Your task to perform on an android device: uninstall "Google Pay: Save, Pay, Manage" Image 0: 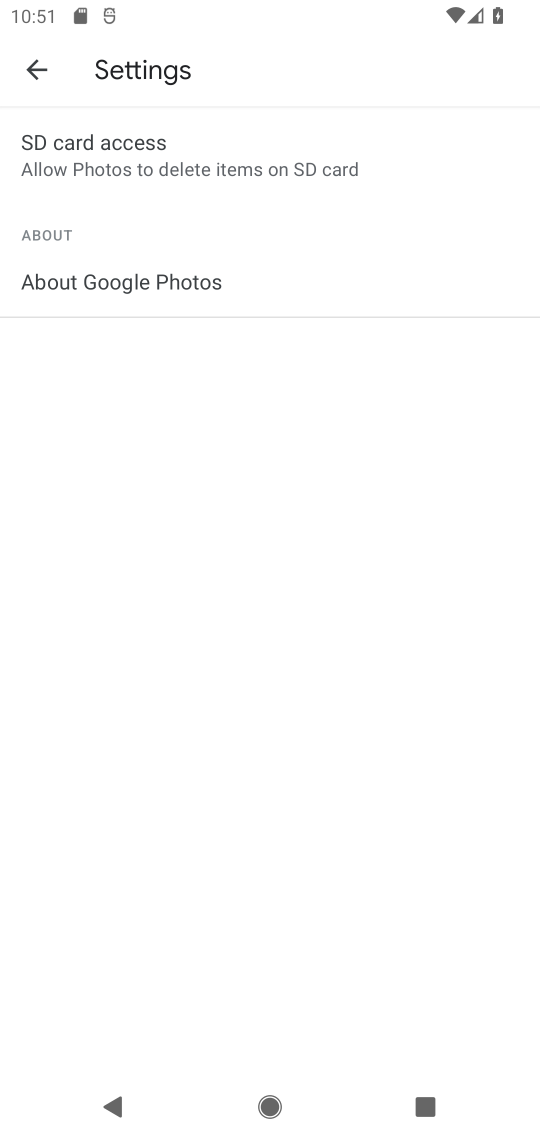
Step 0: press home button
Your task to perform on an android device: uninstall "Google Pay: Save, Pay, Manage" Image 1: 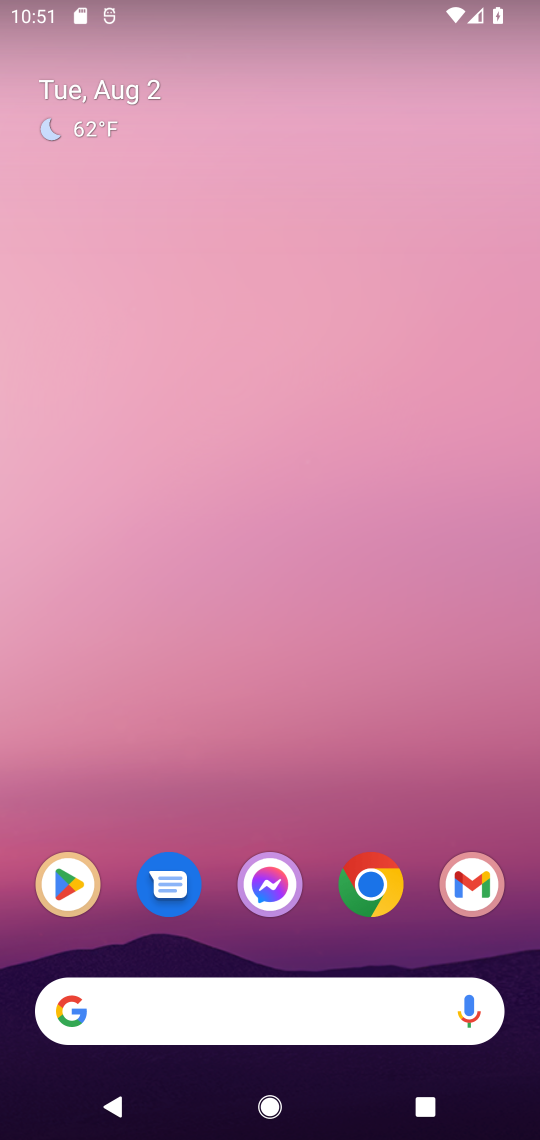
Step 1: click (69, 893)
Your task to perform on an android device: uninstall "Google Pay: Save, Pay, Manage" Image 2: 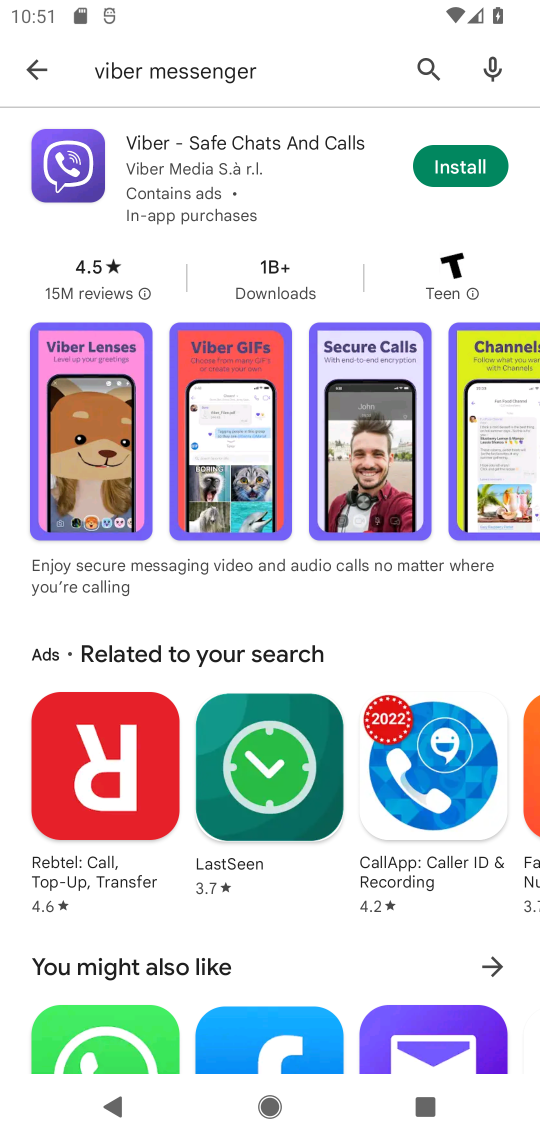
Step 2: click (244, 63)
Your task to perform on an android device: uninstall "Google Pay: Save, Pay, Manage" Image 3: 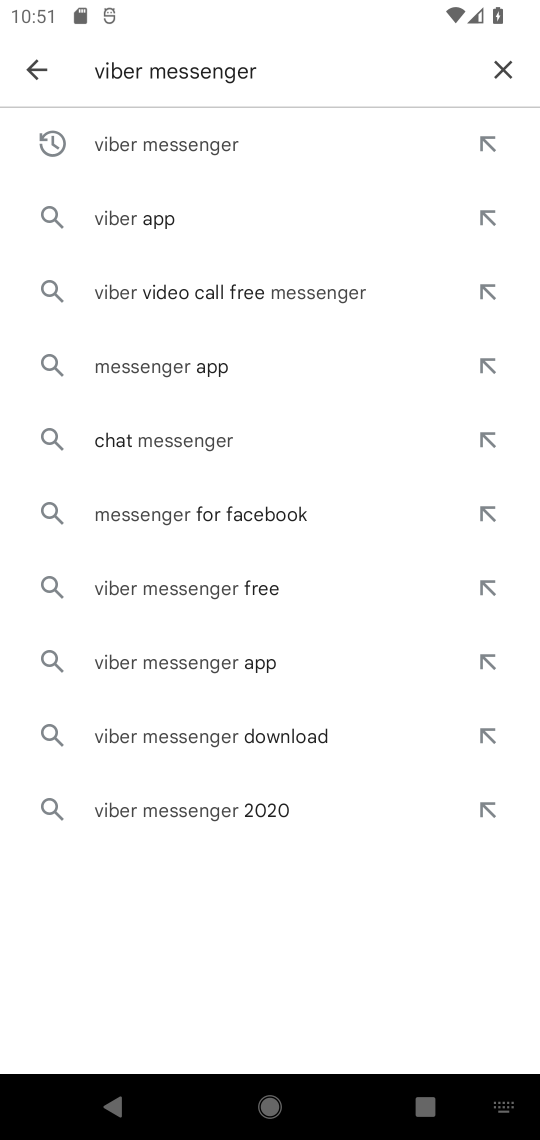
Step 3: click (508, 63)
Your task to perform on an android device: uninstall "Google Pay: Save, Pay, Manage" Image 4: 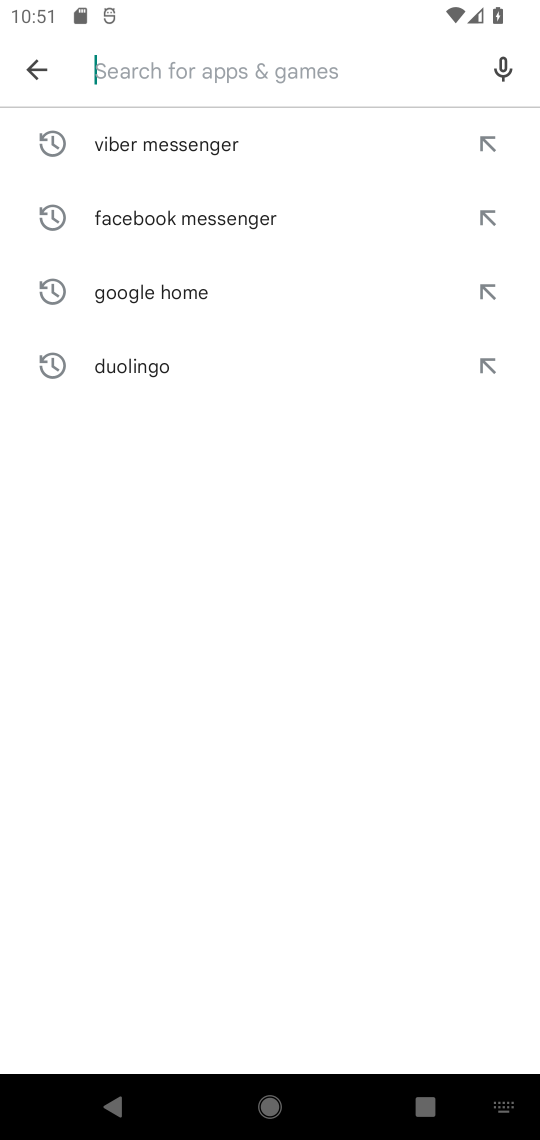
Step 4: type "google pay"
Your task to perform on an android device: uninstall "Google Pay: Save, Pay, Manage" Image 5: 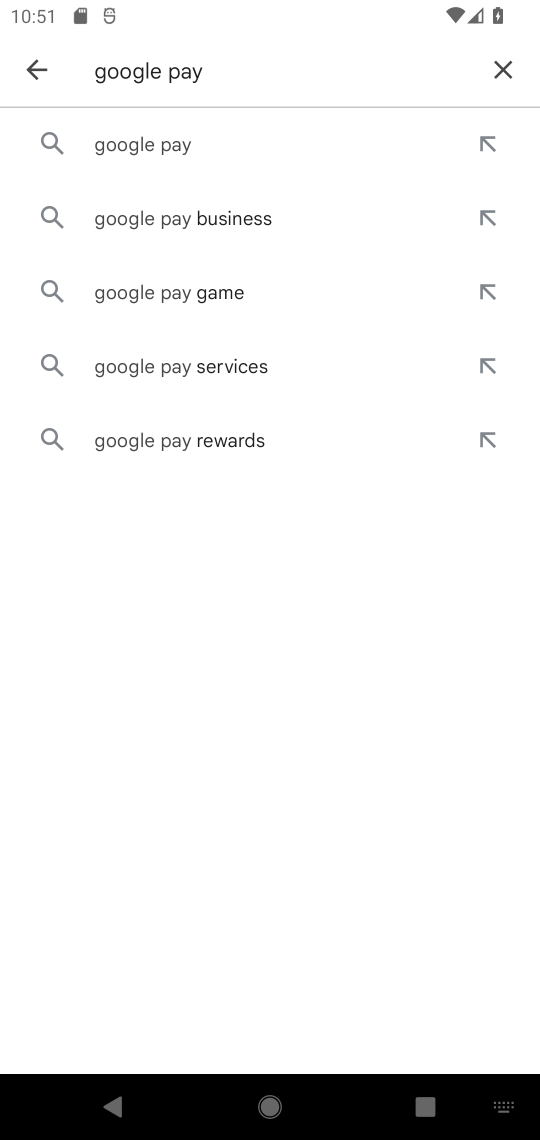
Step 5: click (169, 157)
Your task to perform on an android device: uninstall "Google Pay: Save, Pay, Manage" Image 6: 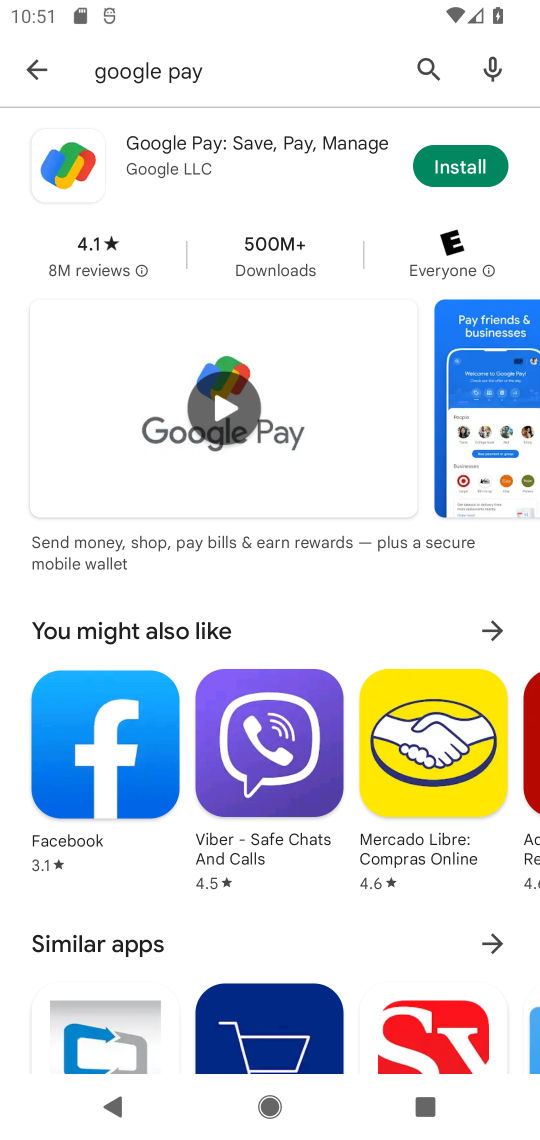
Step 6: task complete